Your task to perform on an android device: Go to wifi settings Image 0: 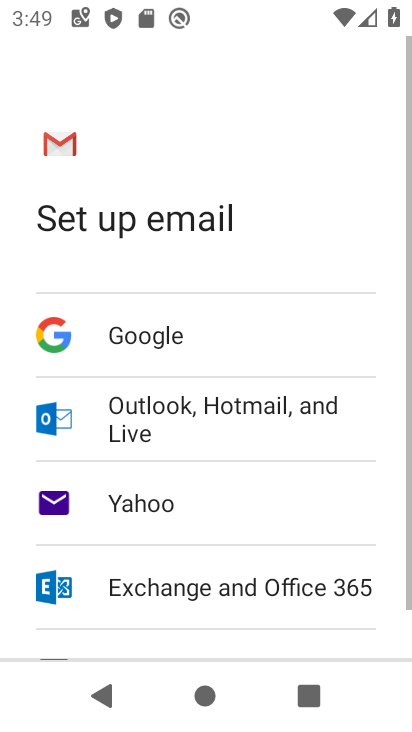
Step 0: drag from (190, 593) to (208, 264)
Your task to perform on an android device: Go to wifi settings Image 1: 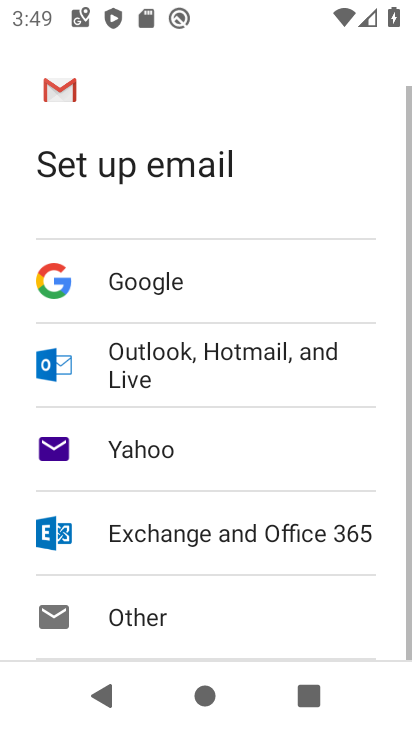
Step 1: press home button
Your task to perform on an android device: Go to wifi settings Image 2: 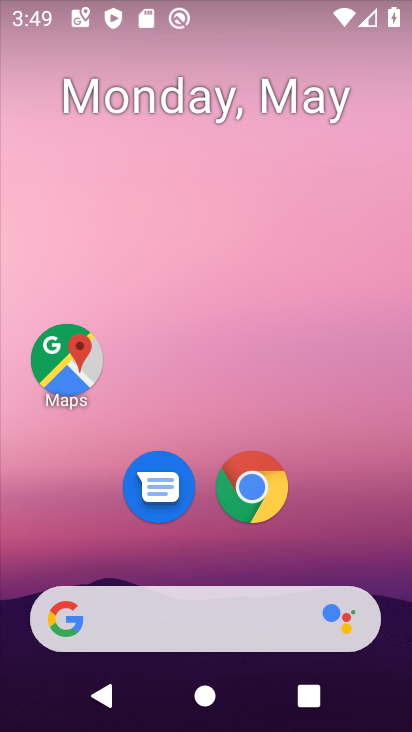
Step 2: drag from (133, 589) to (203, 176)
Your task to perform on an android device: Go to wifi settings Image 3: 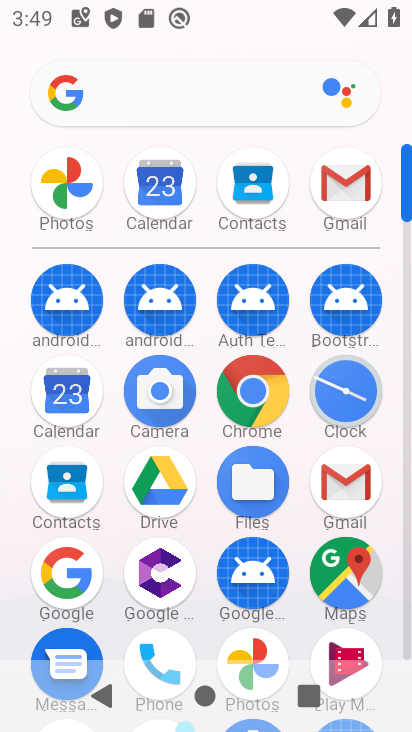
Step 3: drag from (111, 611) to (138, 233)
Your task to perform on an android device: Go to wifi settings Image 4: 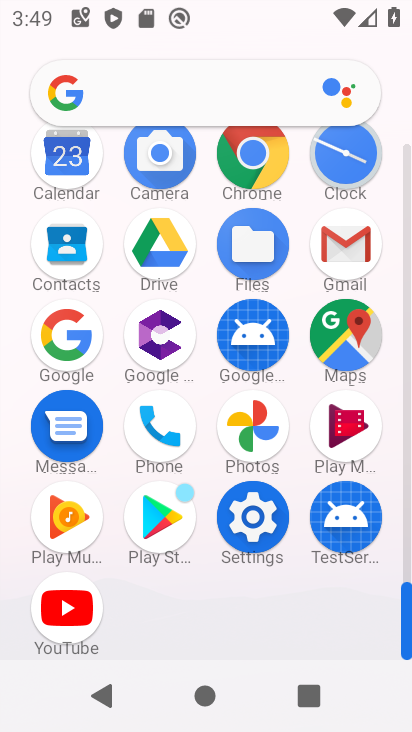
Step 4: click (256, 523)
Your task to perform on an android device: Go to wifi settings Image 5: 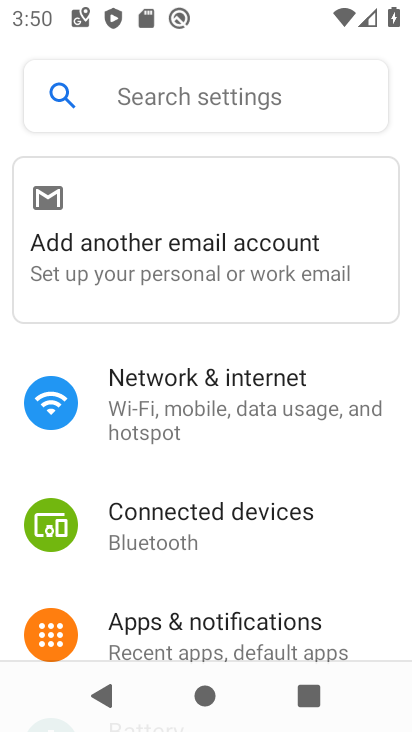
Step 5: click (230, 395)
Your task to perform on an android device: Go to wifi settings Image 6: 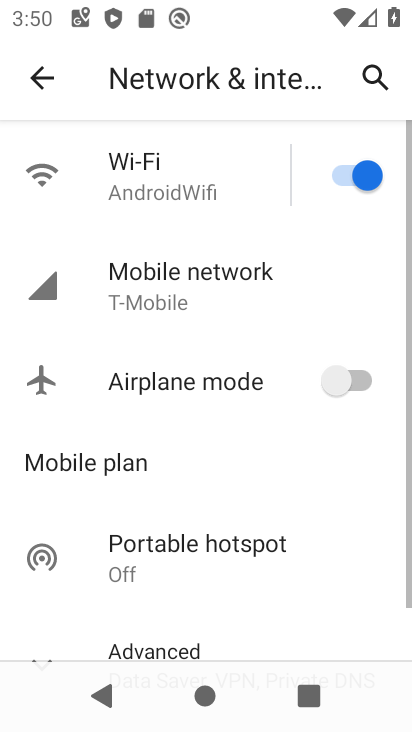
Step 6: click (159, 170)
Your task to perform on an android device: Go to wifi settings Image 7: 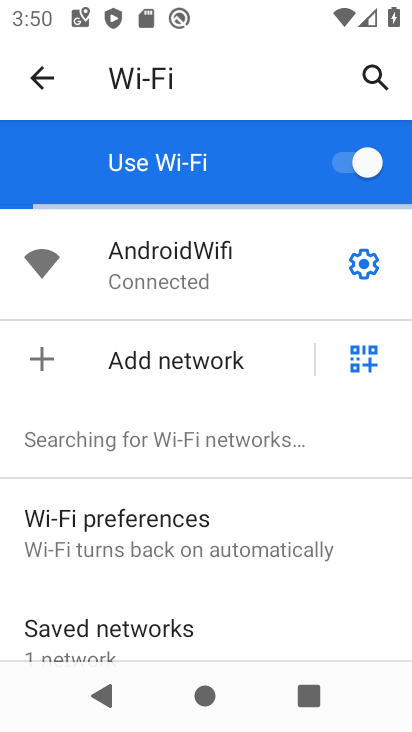
Step 7: click (371, 266)
Your task to perform on an android device: Go to wifi settings Image 8: 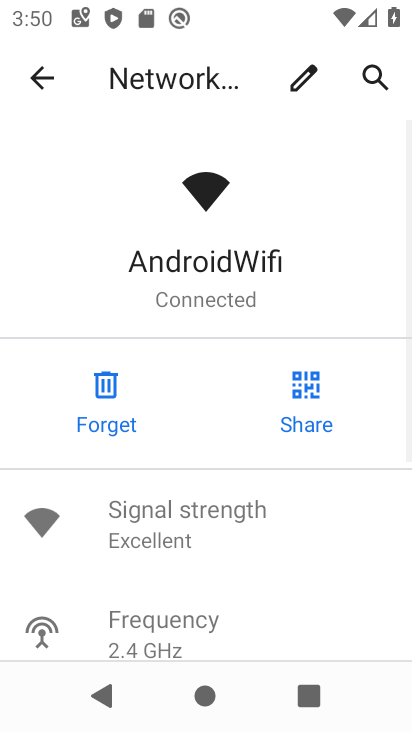
Step 8: drag from (225, 639) to (241, 186)
Your task to perform on an android device: Go to wifi settings Image 9: 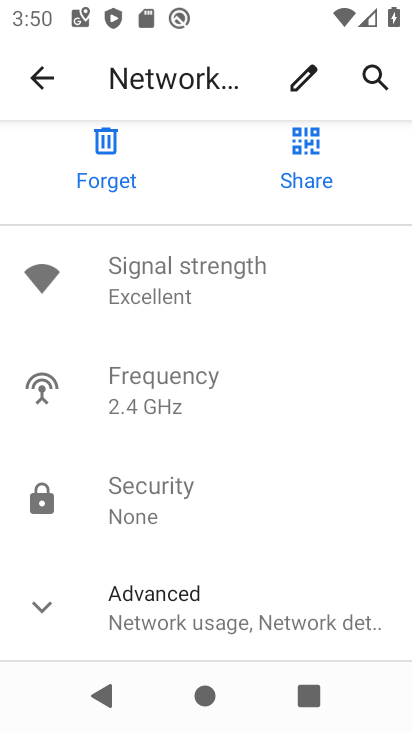
Step 9: click (205, 599)
Your task to perform on an android device: Go to wifi settings Image 10: 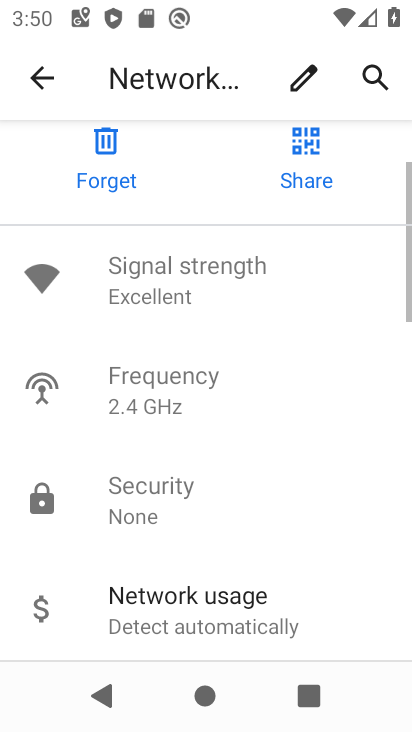
Step 10: task complete